Your task to perform on an android device: Open privacy settings Image 0: 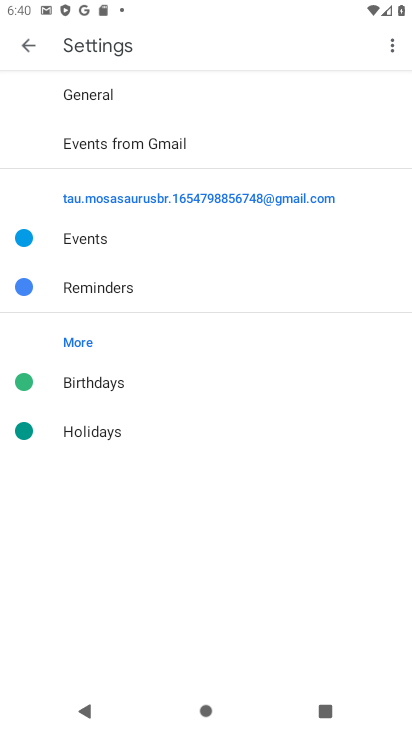
Step 0: press home button
Your task to perform on an android device: Open privacy settings Image 1: 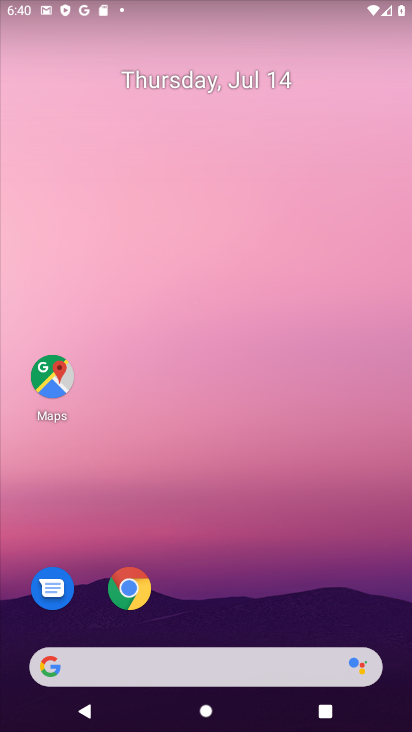
Step 1: drag from (199, 550) to (144, 43)
Your task to perform on an android device: Open privacy settings Image 2: 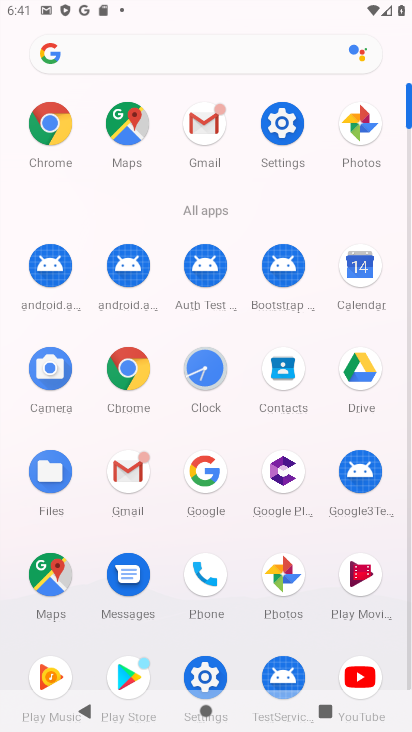
Step 2: click (204, 672)
Your task to perform on an android device: Open privacy settings Image 3: 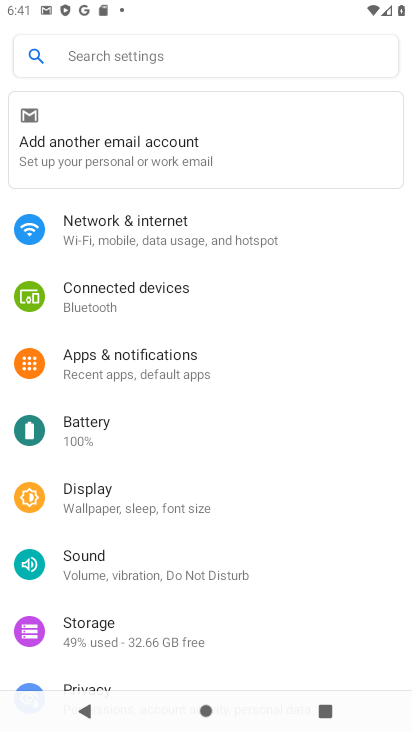
Step 3: click (68, 681)
Your task to perform on an android device: Open privacy settings Image 4: 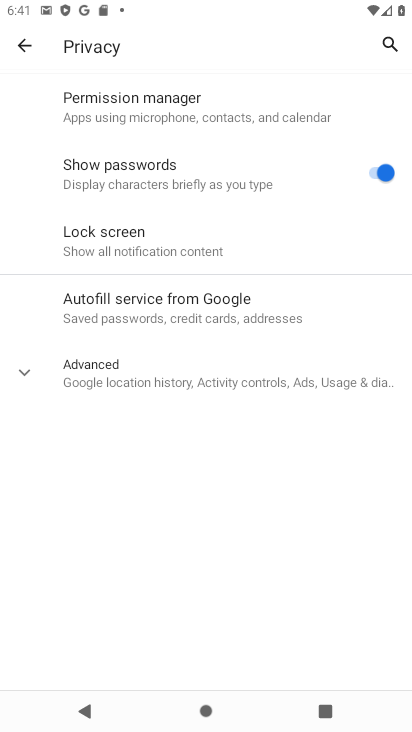
Step 4: task complete